Your task to perform on an android device: Open Google Maps Image 0: 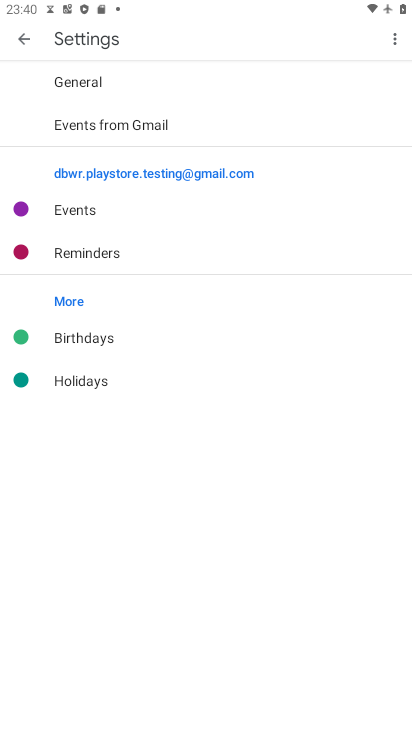
Step 0: press home button
Your task to perform on an android device: Open Google Maps Image 1: 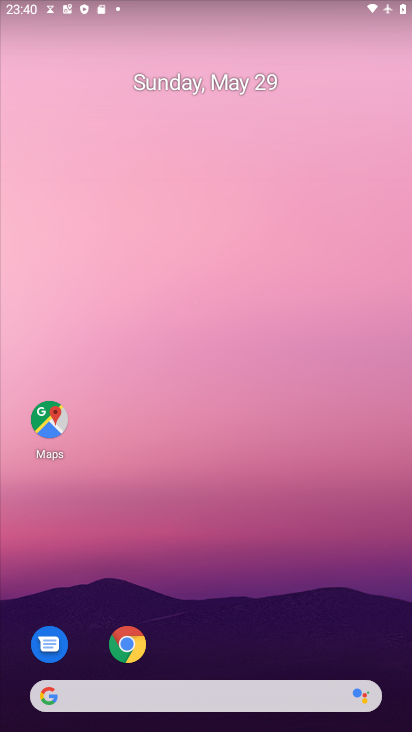
Step 1: drag from (279, 568) to (302, 303)
Your task to perform on an android device: Open Google Maps Image 2: 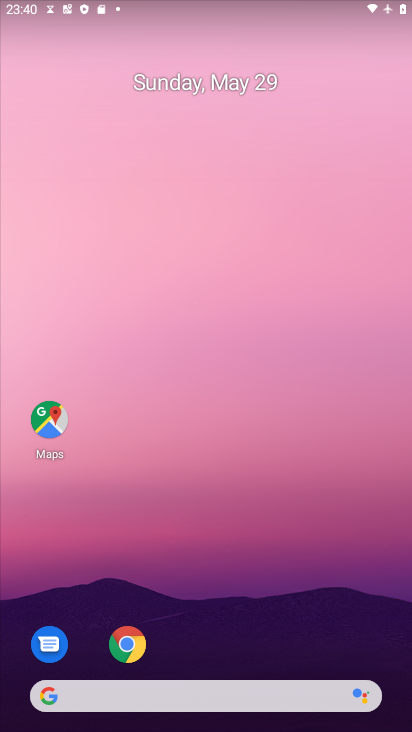
Step 2: click (49, 422)
Your task to perform on an android device: Open Google Maps Image 3: 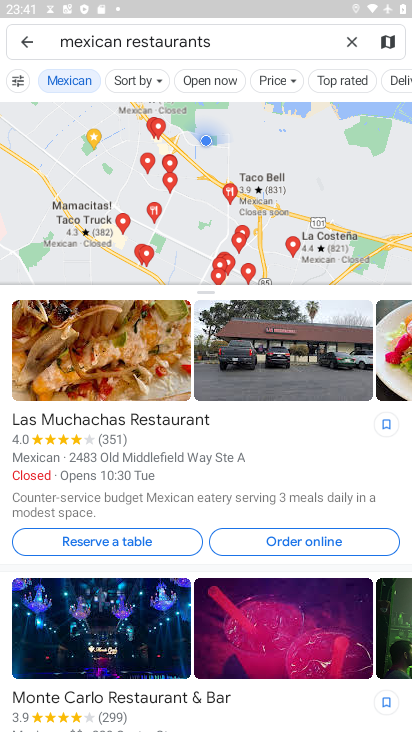
Step 3: task complete